Your task to perform on an android device: open a bookmark in the chrome app Image 0: 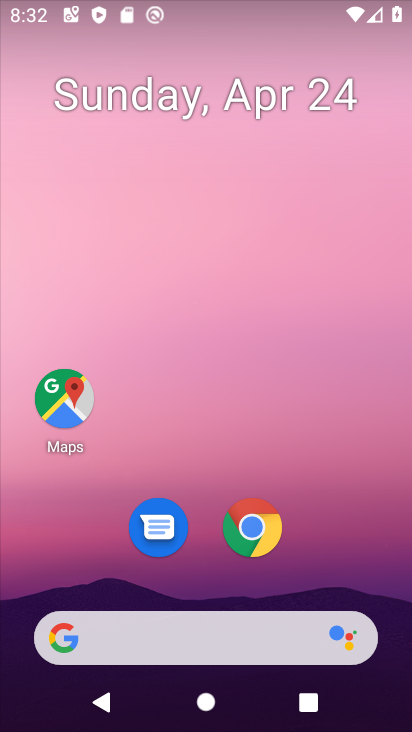
Step 0: click (252, 528)
Your task to perform on an android device: open a bookmark in the chrome app Image 1: 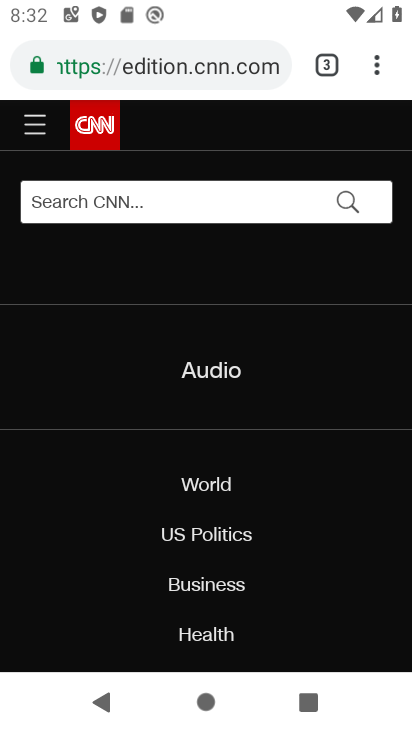
Step 1: click (374, 69)
Your task to perform on an android device: open a bookmark in the chrome app Image 2: 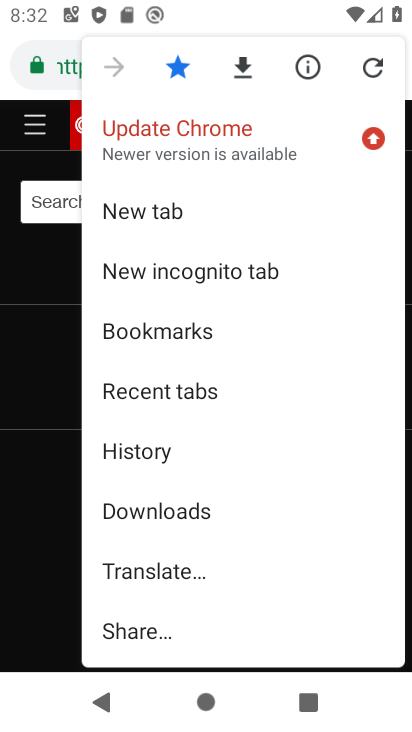
Step 2: click (152, 338)
Your task to perform on an android device: open a bookmark in the chrome app Image 3: 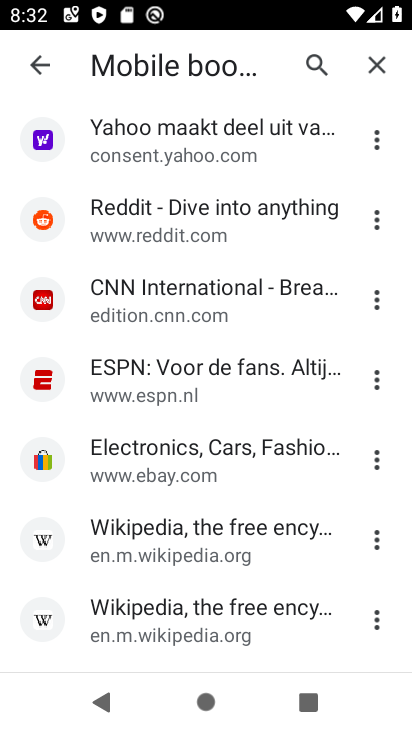
Step 3: click (210, 209)
Your task to perform on an android device: open a bookmark in the chrome app Image 4: 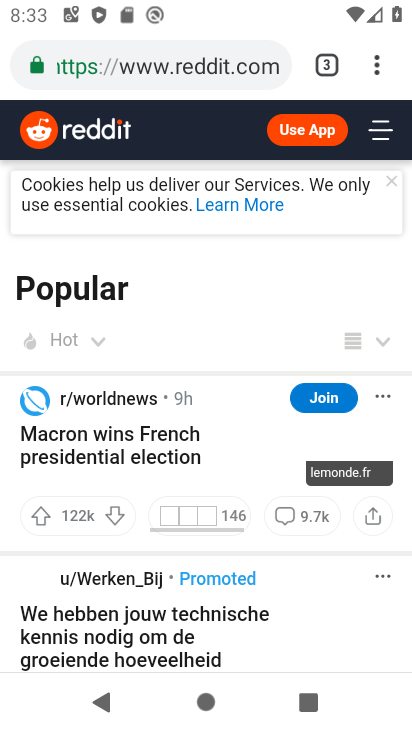
Step 4: task complete